Your task to perform on an android device: choose inbox layout in the gmail app Image 0: 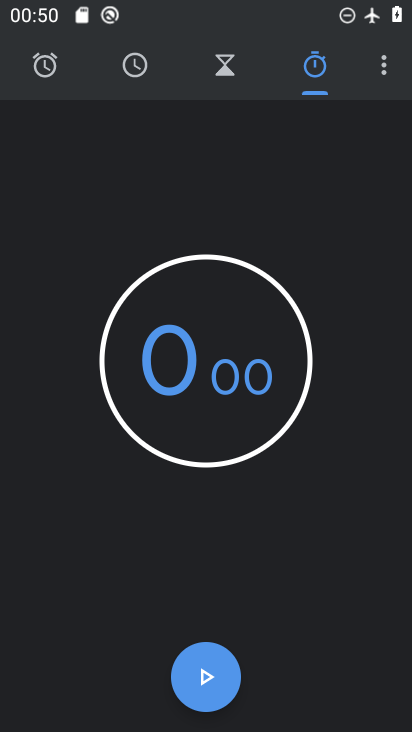
Step 0: press home button
Your task to perform on an android device: choose inbox layout in the gmail app Image 1: 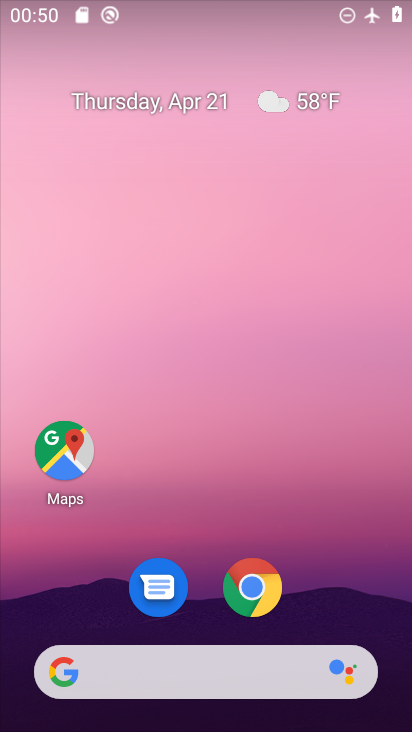
Step 1: drag from (286, 569) to (376, 93)
Your task to perform on an android device: choose inbox layout in the gmail app Image 2: 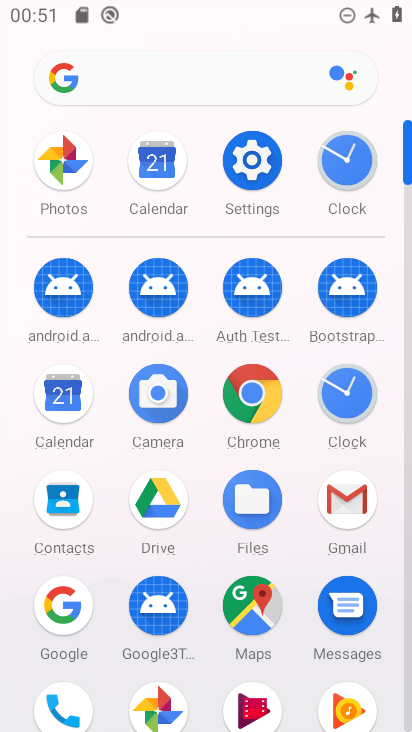
Step 2: click (361, 511)
Your task to perform on an android device: choose inbox layout in the gmail app Image 3: 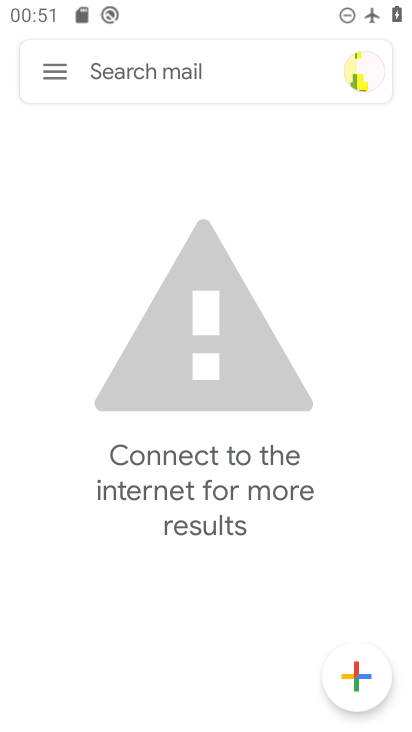
Step 3: click (49, 71)
Your task to perform on an android device: choose inbox layout in the gmail app Image 4: 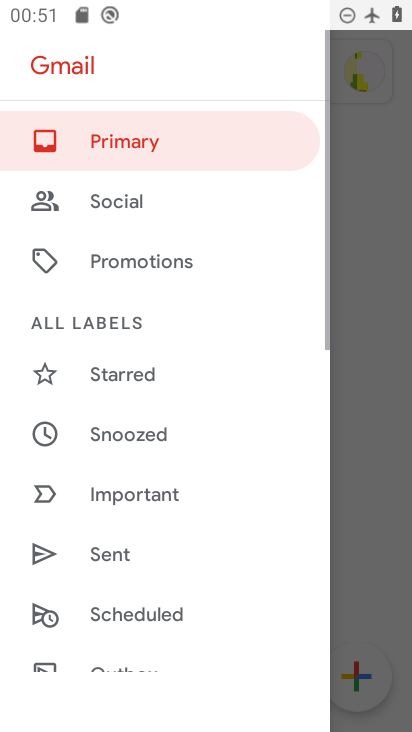
Step 4: drag from (141, 626) to (242, 26)
Your task to perform on an android device: choose inbox layout in the gmail app Image 5: 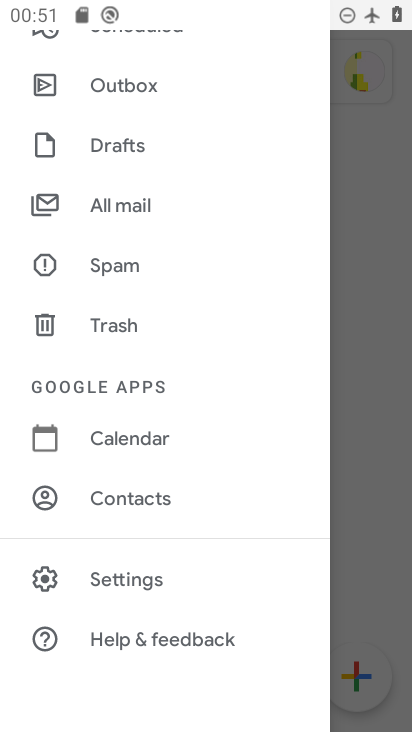
Step 5: click (135, 571)
Your task to perform on an android device: choose inbox layout in the gmail app Image 6: 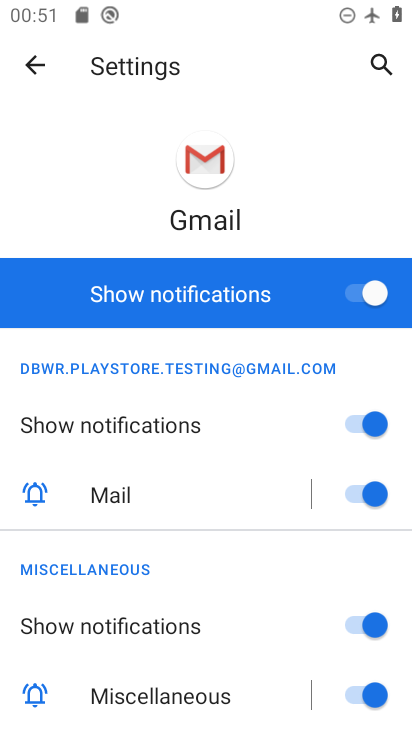
Step 6: click (37, 61)
Your task to perform on an android device: choose inbox layout in the gmail app Image 7: 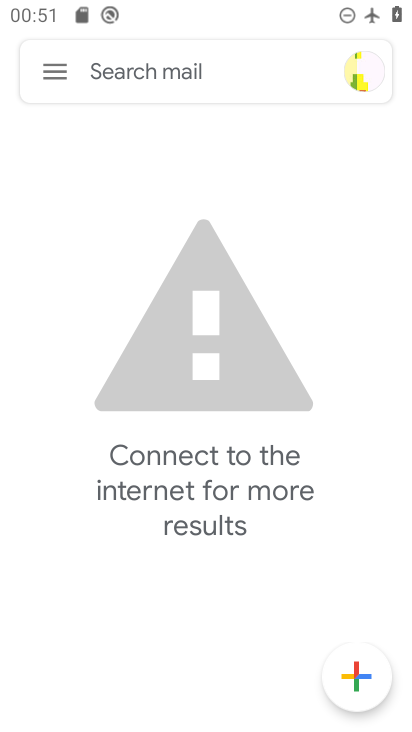
Step 7: click (38, 70)
Your task to perform on an android device: choose inbox layout in the gmail app Image 8: 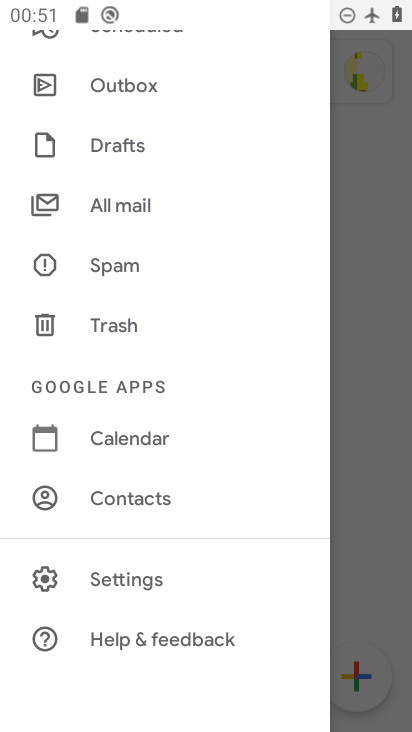
Step 8: click (146, 584)
Your task to perform on an android device: choose inbox layout in the gmail app Image 9: 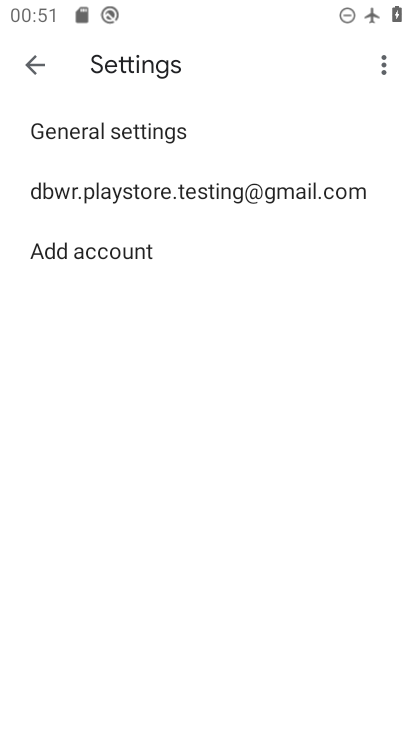
Step 9: click (109, 202)
Your task to perform on an android device: choose inbox layout in the gmail app Image 10: 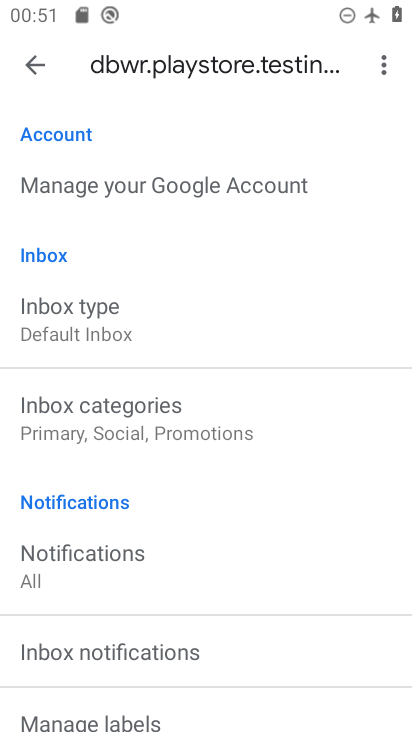
Step 10: click (85, 310)
Your task to perform on an android device: choose inbox layout in the gmail app Image 11: 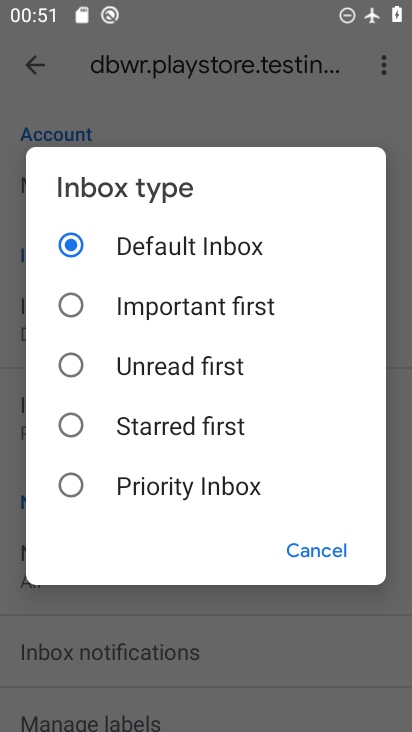
Step 11: click (74, 382)
Your task to perform on an android device: choose inbox layout in the gmail app Image 12: 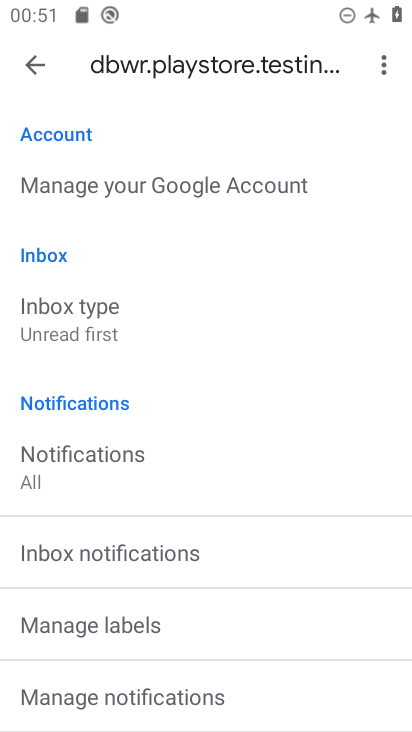
Step 12: task complete